Your task to perform on an android device: Open Google Chrome and open the bookmarks view Image 0: 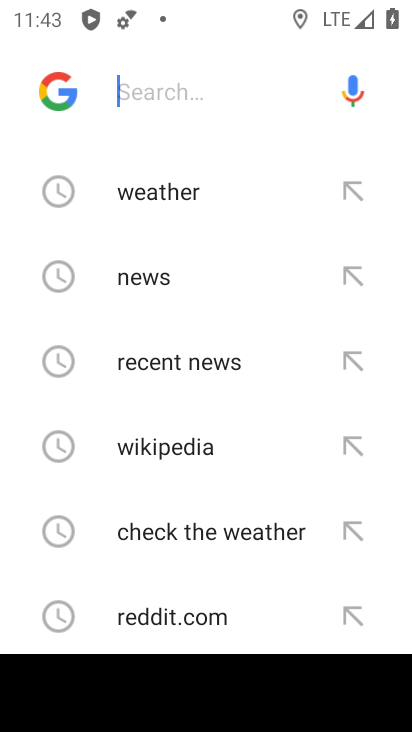
Step 0: press home button
Your task to perform on an android device: Open Google Chrome and open the bookmarks view Image 1: 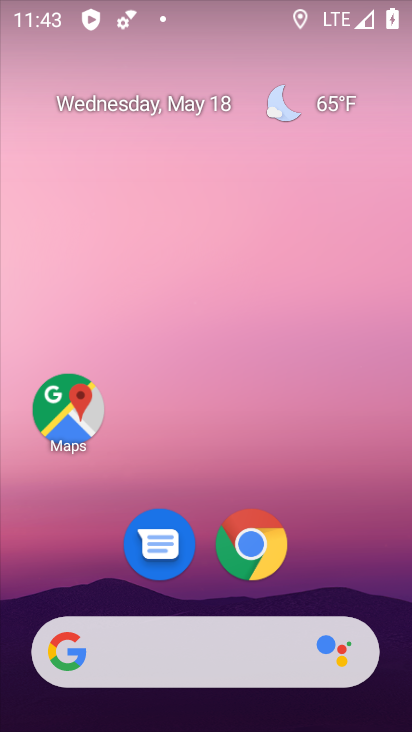
Step 1: drag from (368, 557) to (356, 178)
Your task to perform on an android device: Open Google Chrome and open the bookmarks view Image 2: 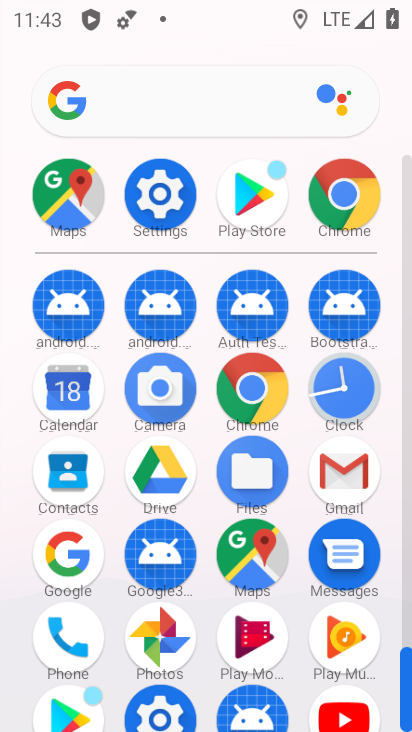
Step 2: click (351, 214)
Your task to perform on an android device: Open Google Chrome and open the bookmarks view Image 3: 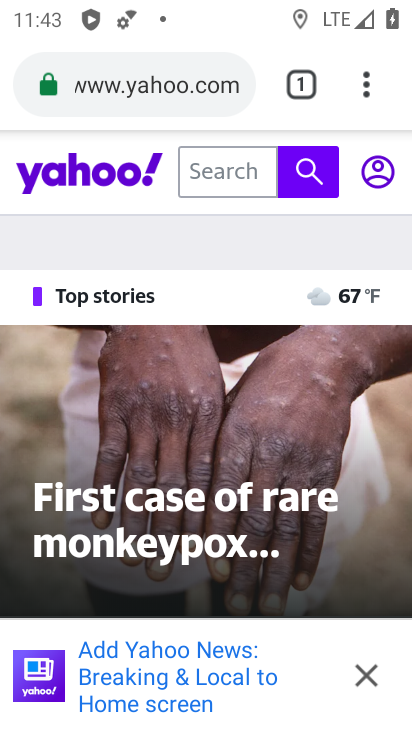
Step 3: click (368, 96)
Your task to perform on an android device: Open Google Chrome and open the bookmarks view Image 4: 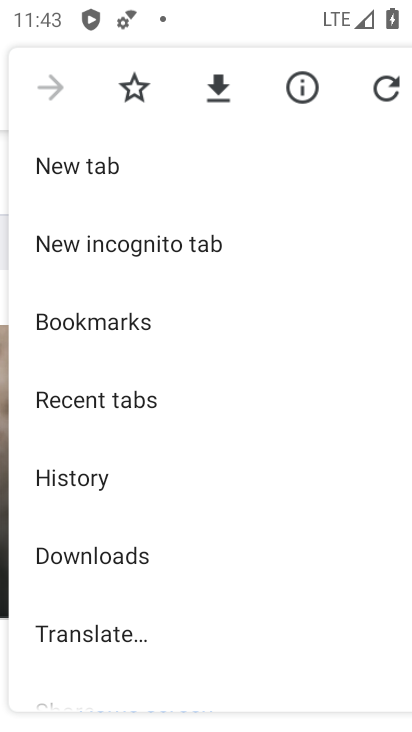
Step 4: click (155, 317)
Your task to perform on an android device: Open Google Chrome and open the bookmarks view Image 5: 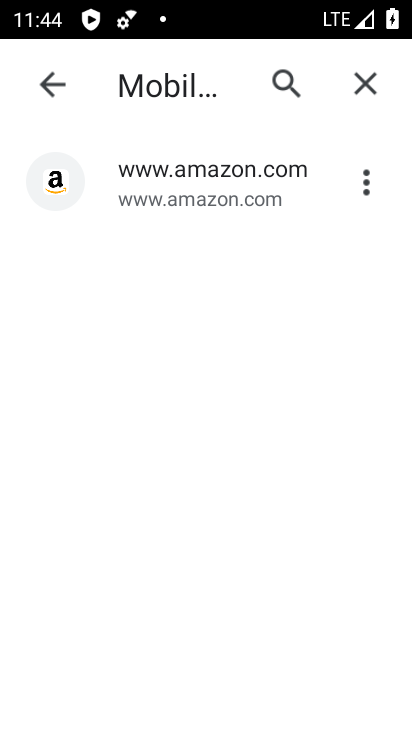
Step 5: task complete